Your task to perform on an android device: What's the weather today? Image 0: 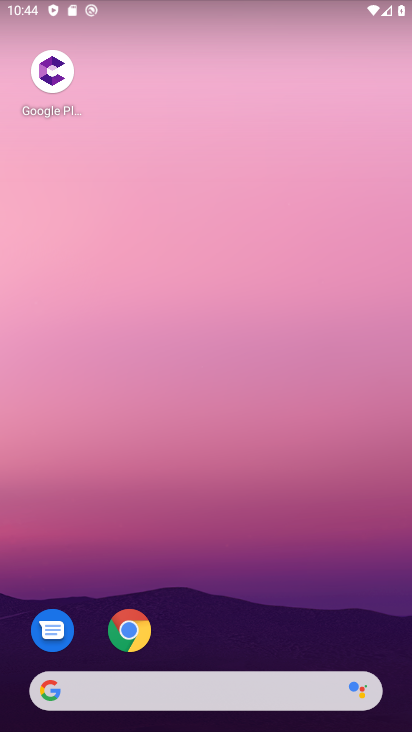
Step 0: drag from (285, 679) to (228, 245)
Your task to perform on an android device: What's the weather today? Image 1: 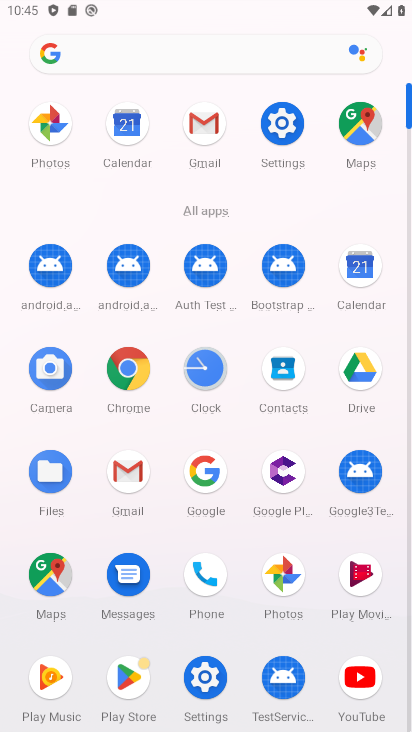
Step 1: click (202, 481)
Your task to perform on an android device: What's the weather today? Image 2: 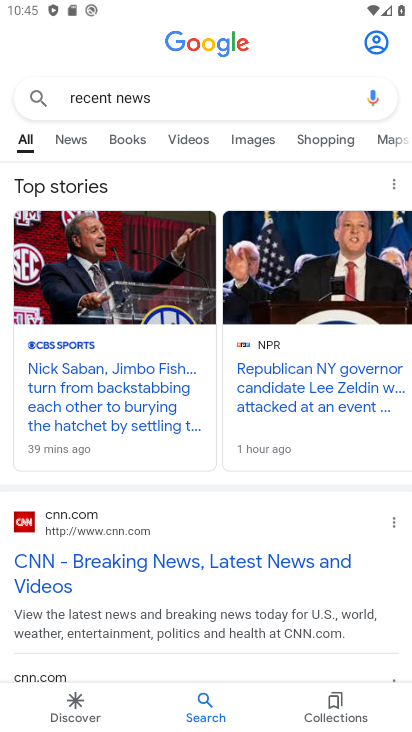
Step 2: click (176, 86)
Your task to perform on an android device: What's the weather today? Image 3: 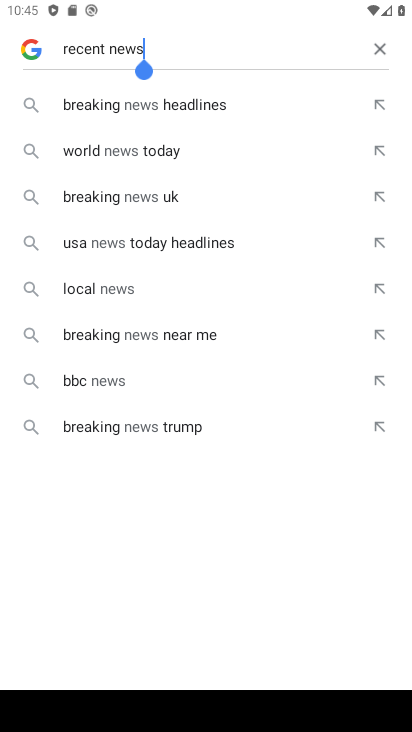
Step 3: click (383, 46)
Your task to perform on an android device: What's the weather today? Image 4: 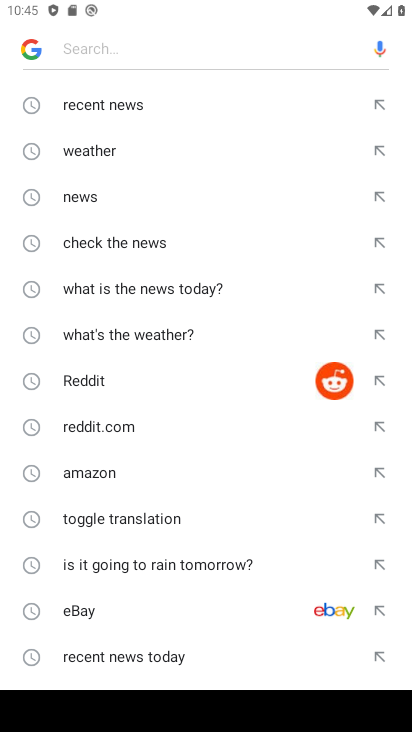
Step 4: click (96, 150)
Your task to perform on an android device: What's the weather today? Image 5: 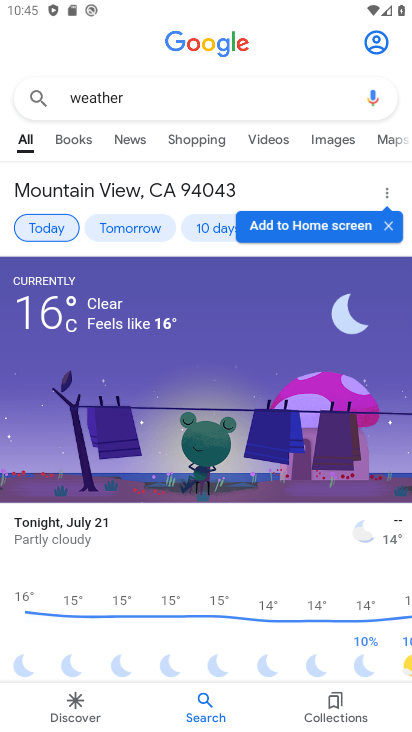
Step 5: task complete